Your task to perform on an android device: Turn off the flashlight Image 0: 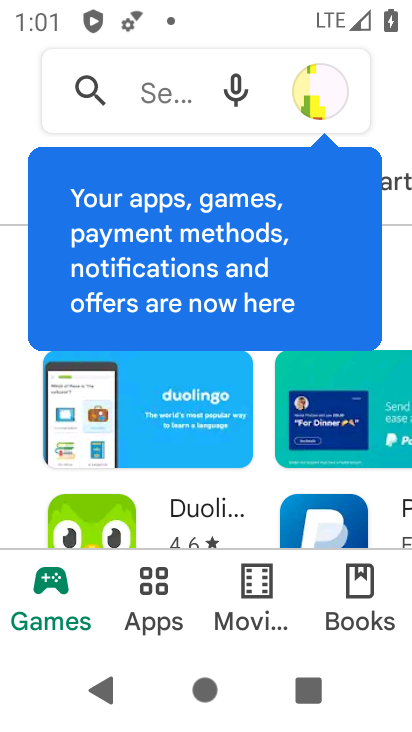
Step 0: press back button
Your task to perform on an android device: Turn off the flashlight Image 1: 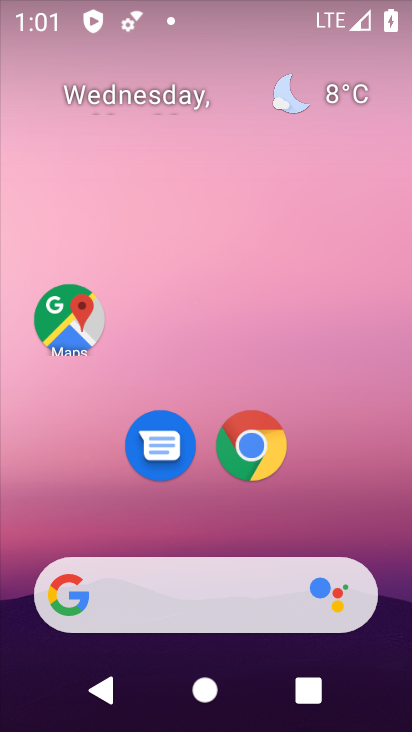
Step 1: task complete